Your task to perform on an android device: install app "Facebook Messenger" Image 0: 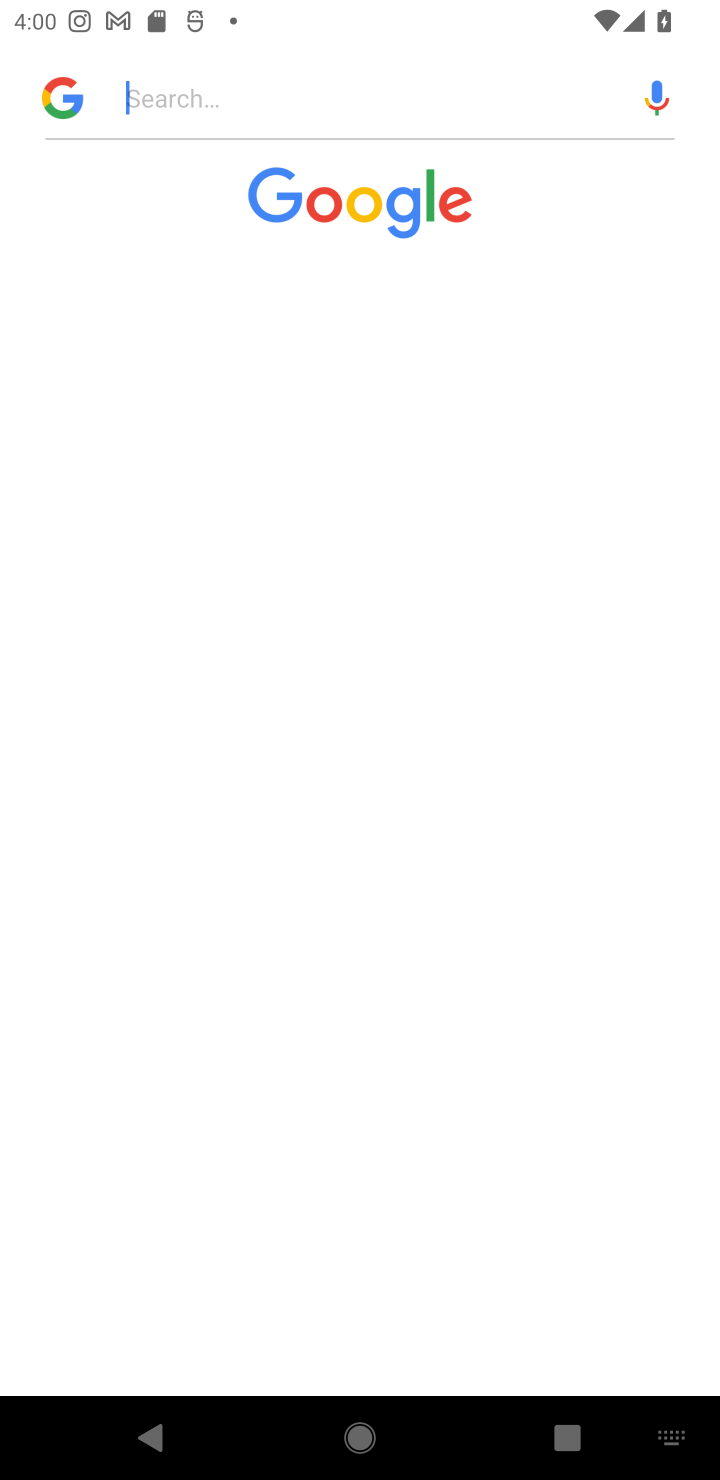
Step 0: press home button
Your task to perform on an android device: install app "Facebook Messenger" Image 1: 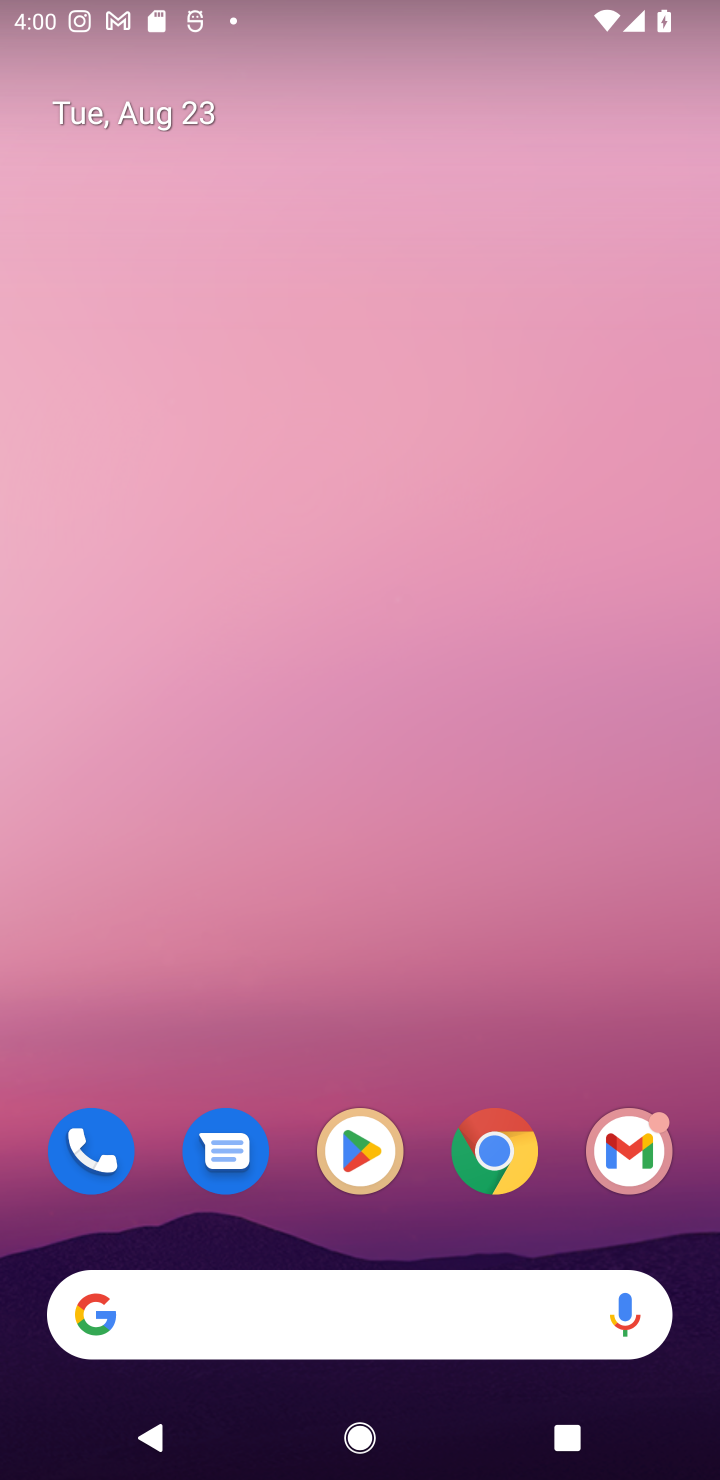
Step 1: click (366, 1141)
Your task to perform on an android device: install app "Facebook Messenger" Image 2: 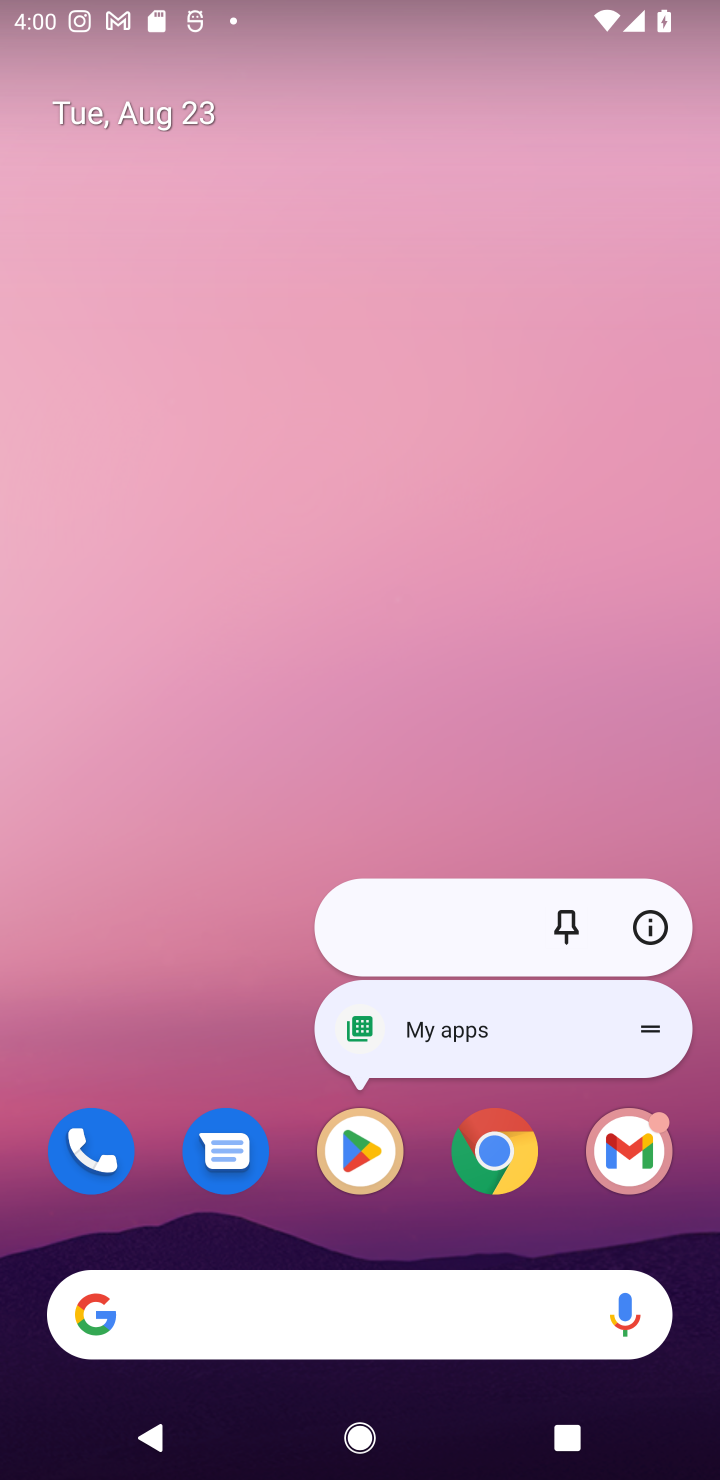
Step 2: click (366, 1141)
Your task to perform on an android device: install app "Facebook Messenger" Image 3: 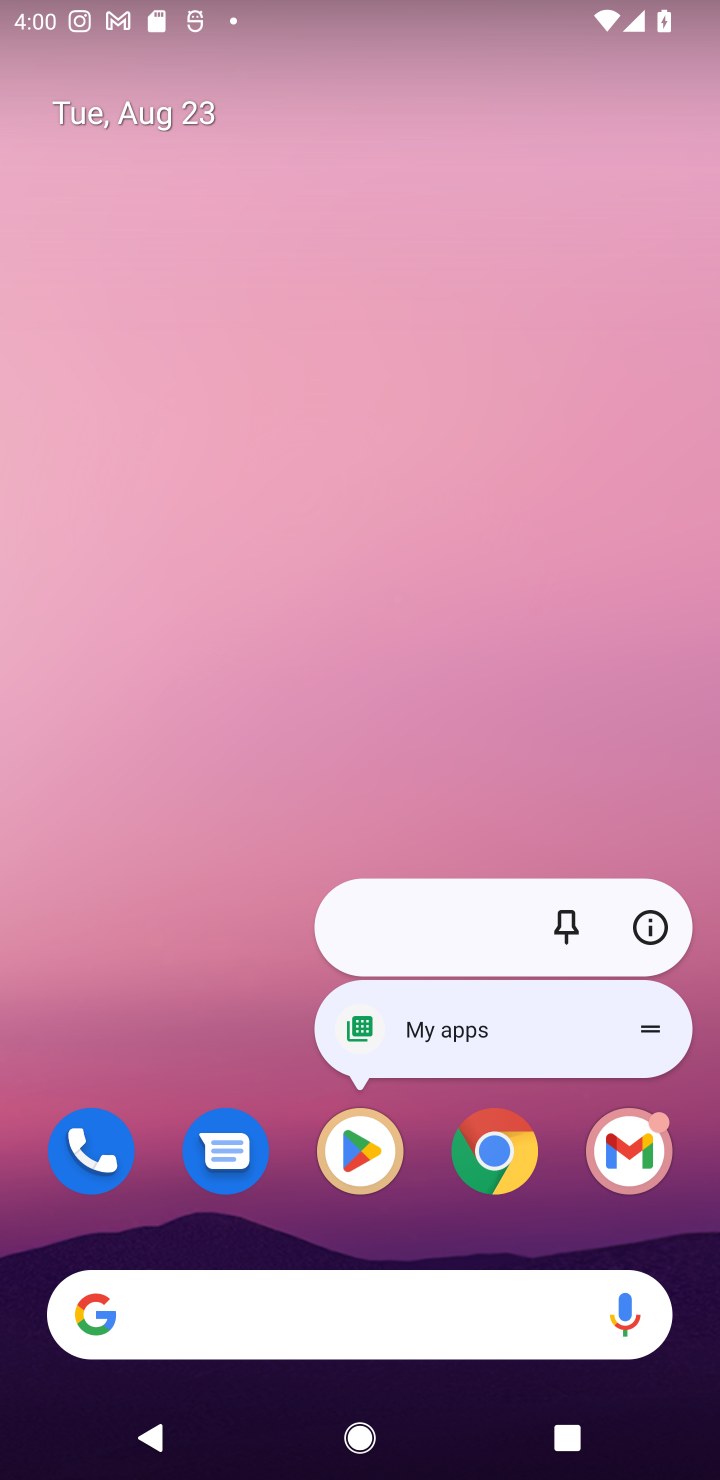
Step 3: click (366, 1141)
Your task to perform on an android device: install app "Facebook Messenger" Image 4: 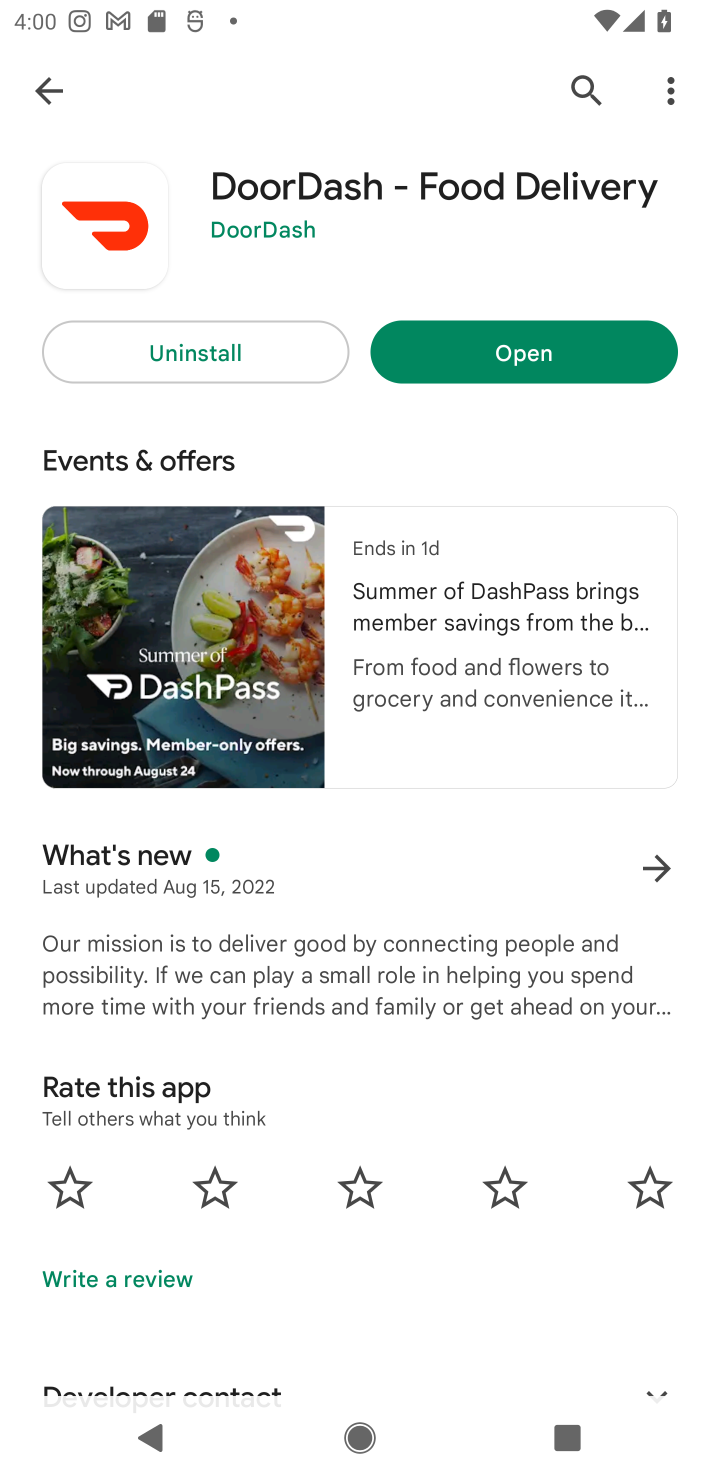
Step 4: click (584, 81)
Your task to perform on an android device: install app "Facebook Messenger" Image 5: 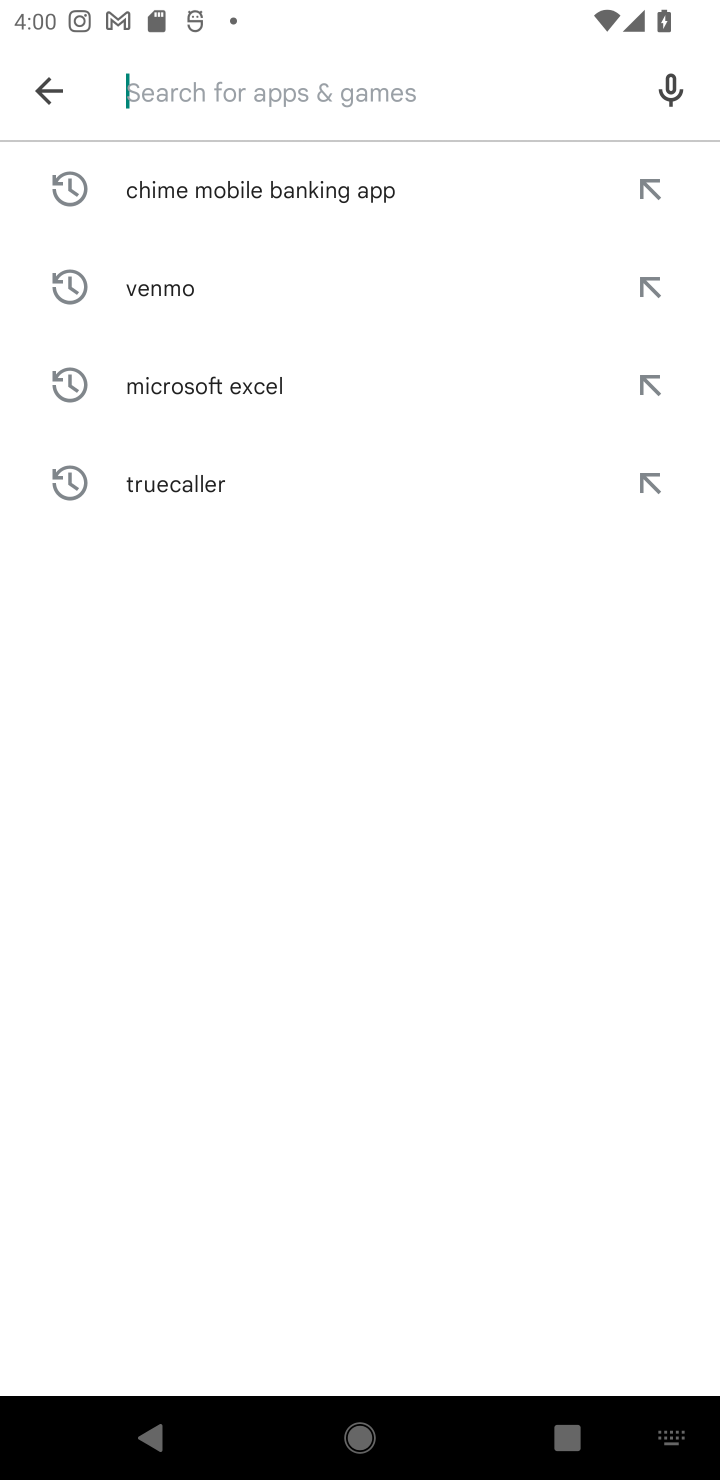
Step 5: type "Facebook Messenger"
Your task to perform on an android device: install app "Facebook Messenger" Image 6: 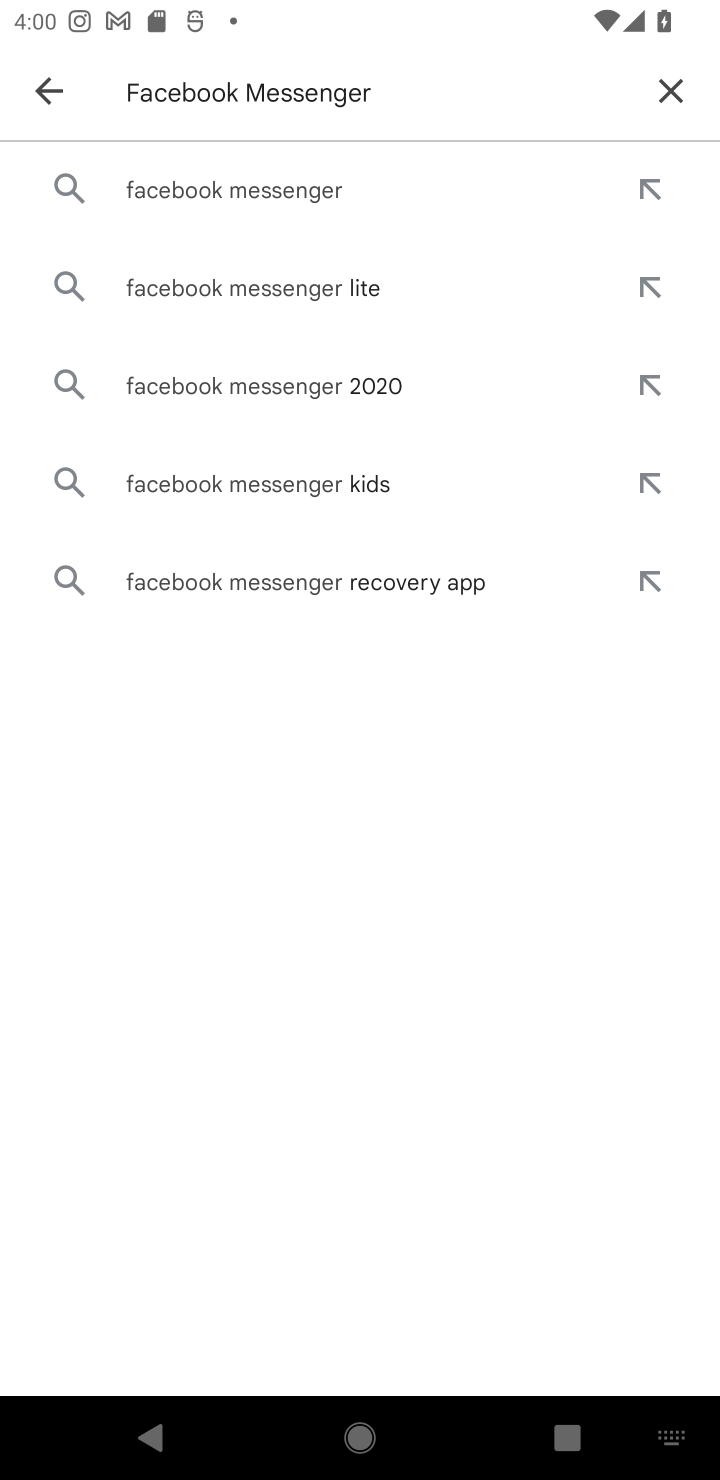
Step 6: click (295, 175)
Your task to perform on an android device: install app "Facebook Messenger" Image 7: 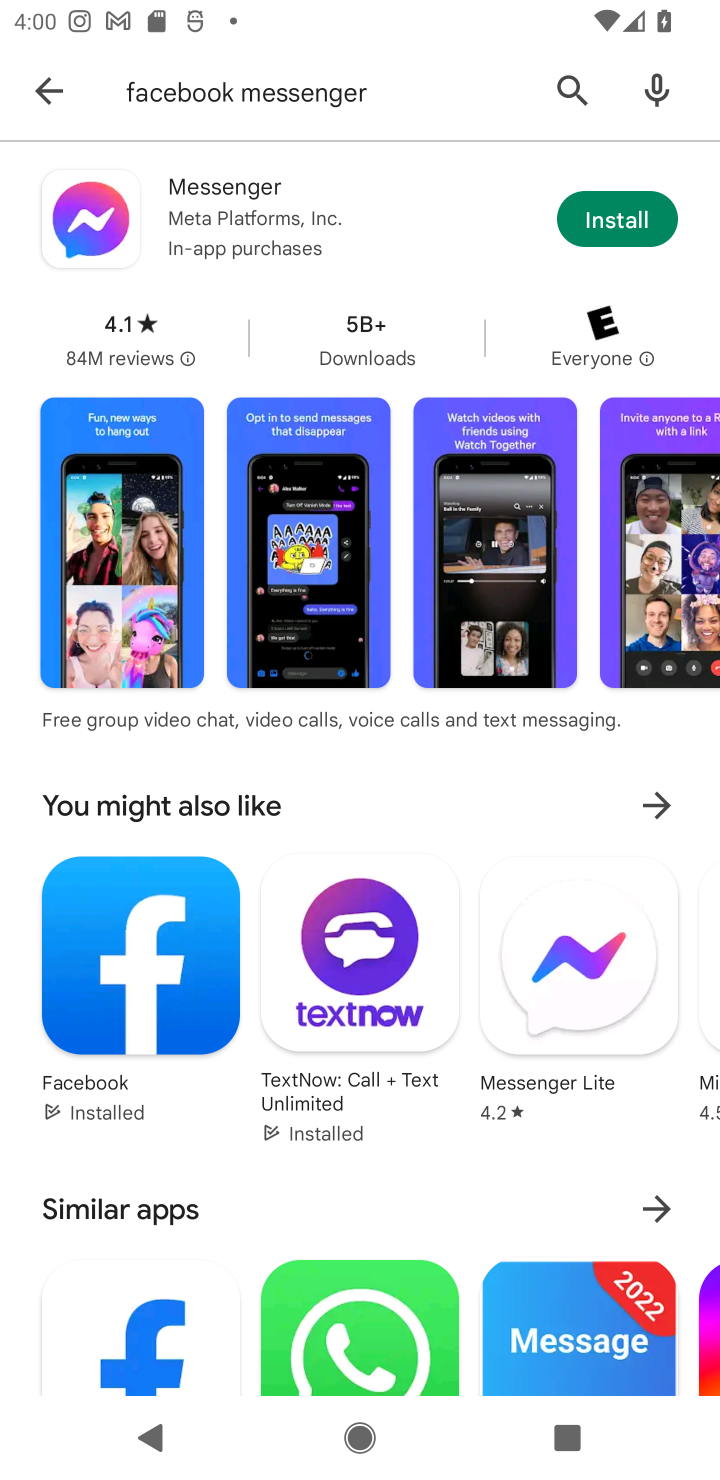
Step 7: click (654, 213)
Your task to perform on an android device: install app "Facebook Messenger" Image 8: 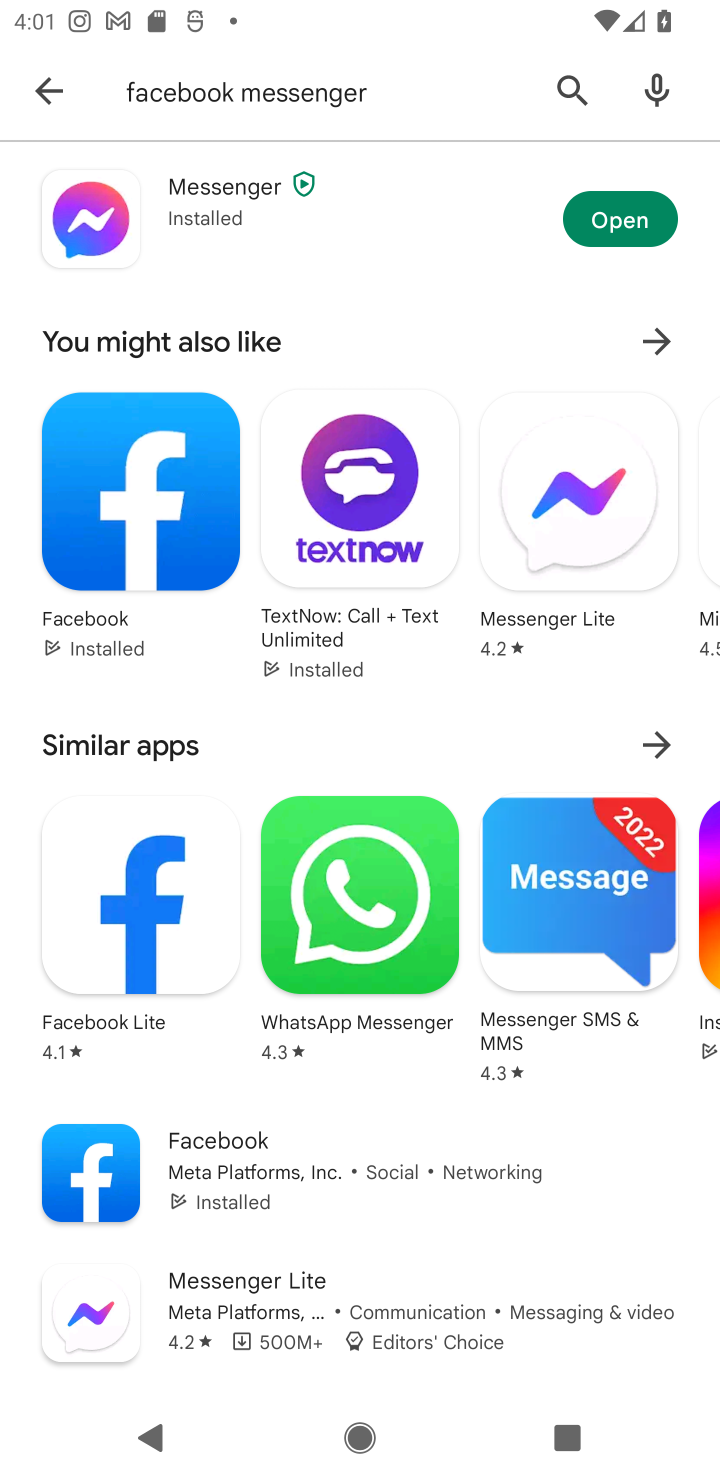
Step 8: task complete